Your task to perform on an android device: Open calendar and show me the third week of next month Image 0: 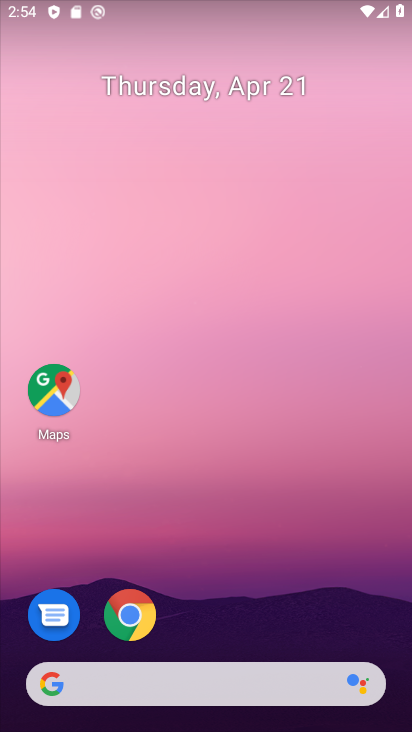
Step 0: drag from (211, 651) to (229, 50)
Your task to perform on an android device: Open calendar and show me the third week of next month Image 1: 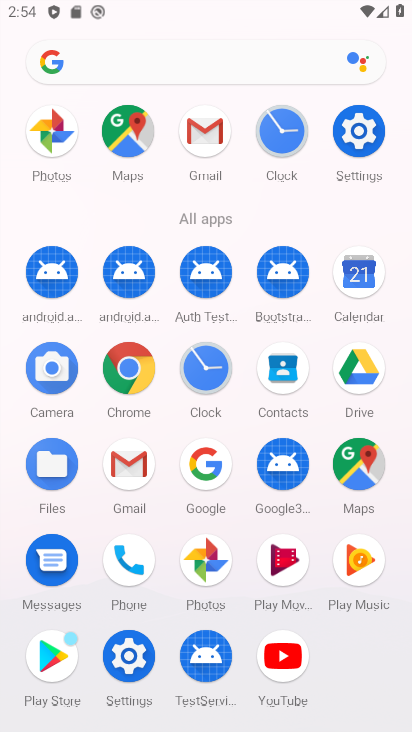
Step 1: click (358, 272)
Your task to perform on an android device: Open calendar and show me the third week of next month Image 2: 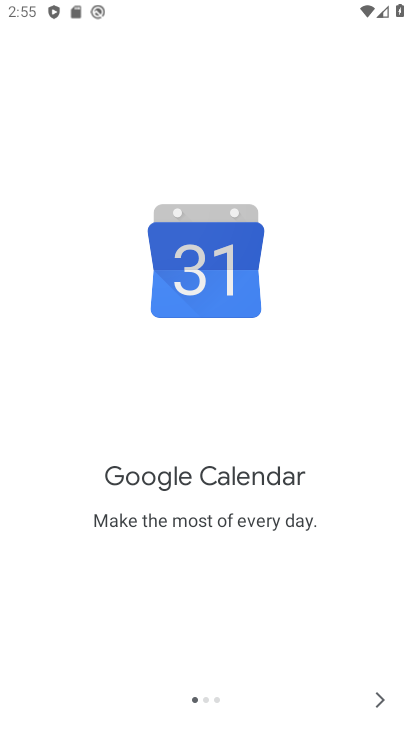
Step 2: click (371, 695)
Your task to perform on an android device: Open calendar and show me the third week of next month Image 3: 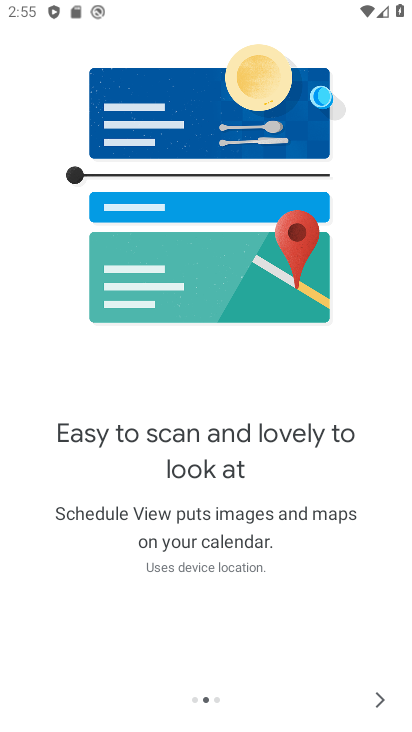
Step 3: click (372, 694)
Your task to perform on an android device: Open calendar and show me the third week of next month Image 4: 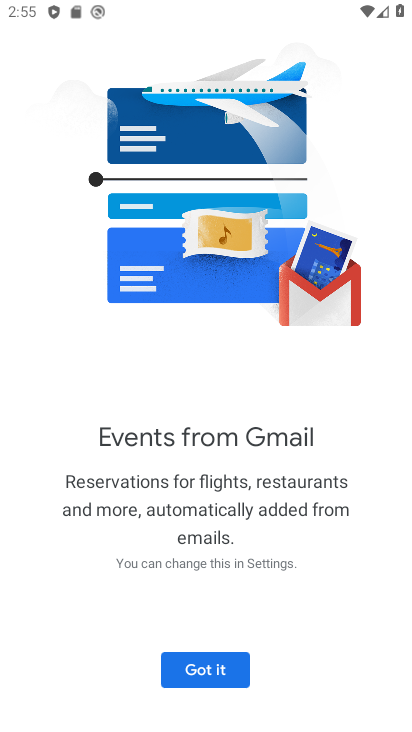
Step 4: click (208, 665)
Your task to perform on an android device: Open calendar and show me the third week of next month Image 5: 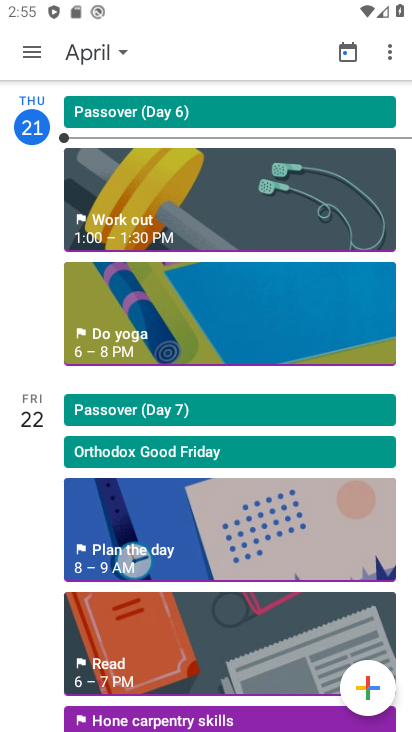
Step 5: click (35, 51)
Your task to perform on an android device: Open calendar and show me the third week of next month Image 6: 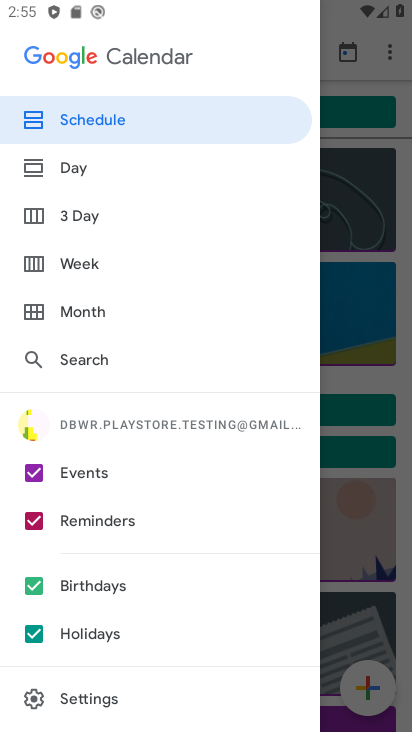
Step 6: click (68, 261)
Your task to perform on an android device: Open calendar and show me the third week of next month Image 7: 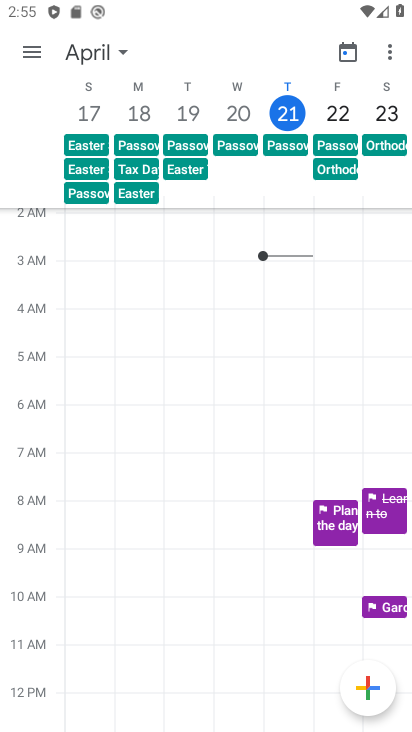
Step 7: drag from (380, 106) to (23, 109)
Your task to perform on an android device: Open calendar and show me the third week of next month Image 8: 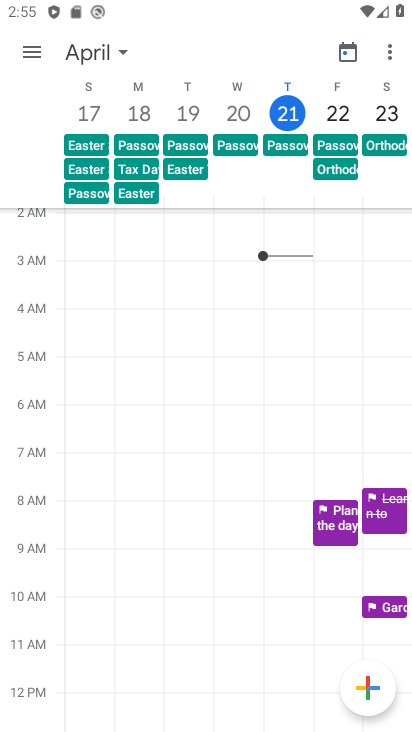
Step 8: drag from (378, 109) to (14, 135)
Your task to perform on an android device: Open calendar and show me the third week of next month Image 9: 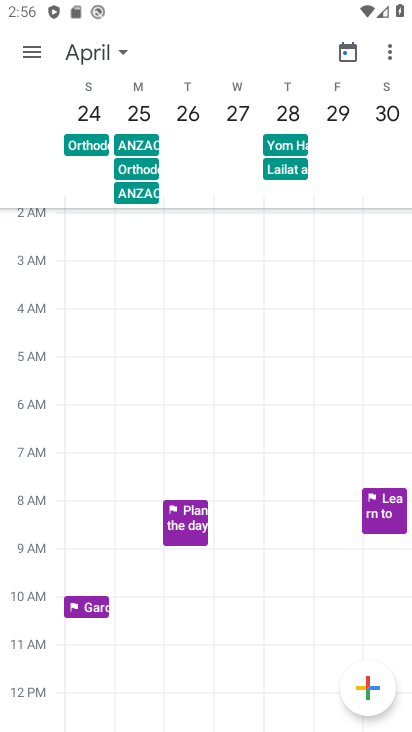
Step 9: drag from (386, 105) to (27, 110)
Your task to perform on an android device: Open calendar and show me the third week of next month Image 10: 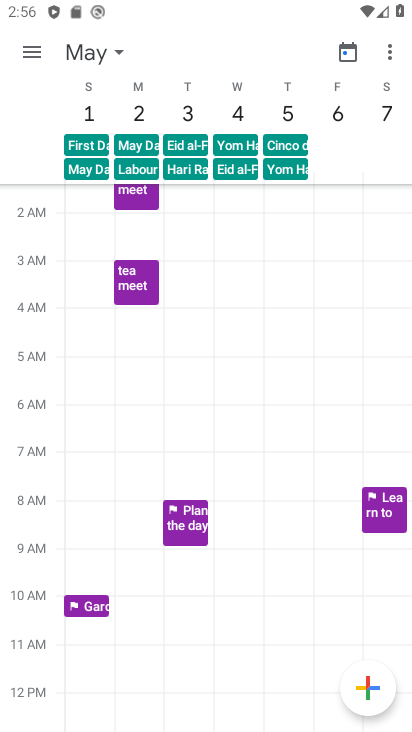
Step 10: drag from (383, 104) to (44, 114)
Your task to perform on an android device: Open calendar and show me the third week of next month Image 11: 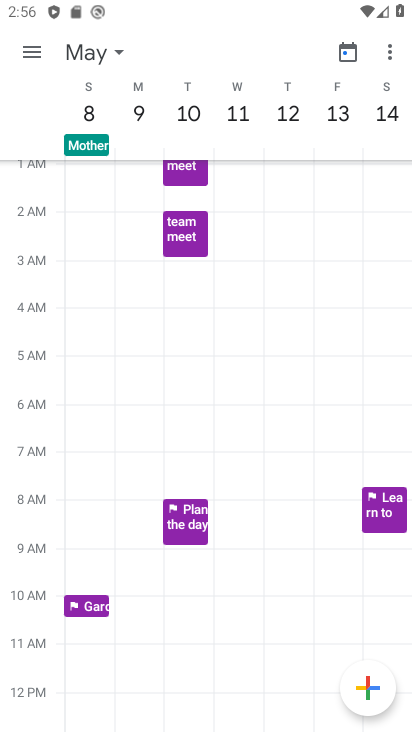
Step 11: drag from (381, 107) to (56, 106)
Your task to perform on an android device: Open calendar and show me the third week of next month Image 12: 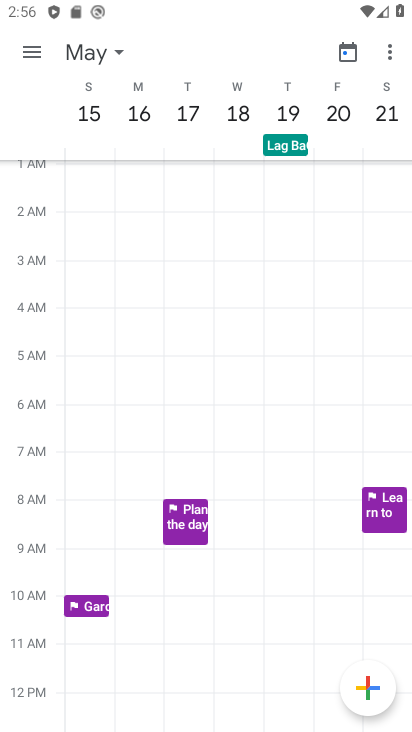
Step 12: click (94, 111)
Your task to perform on an android device: Open calendar and show me the third week of next month Image 13: 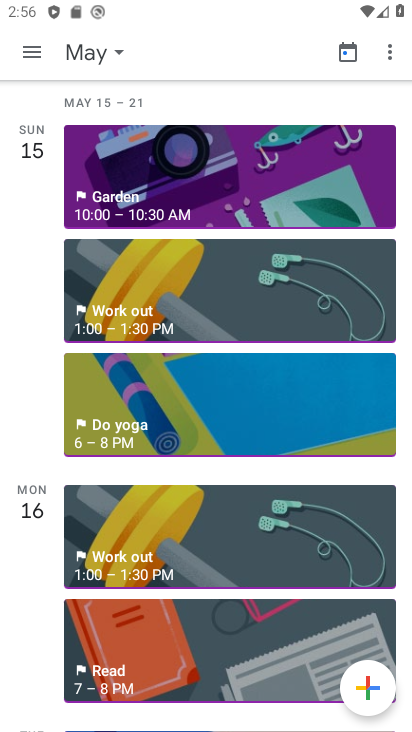
Step 13: task complete